Your task to perform on an android device: toggle sleep mode Image 0: 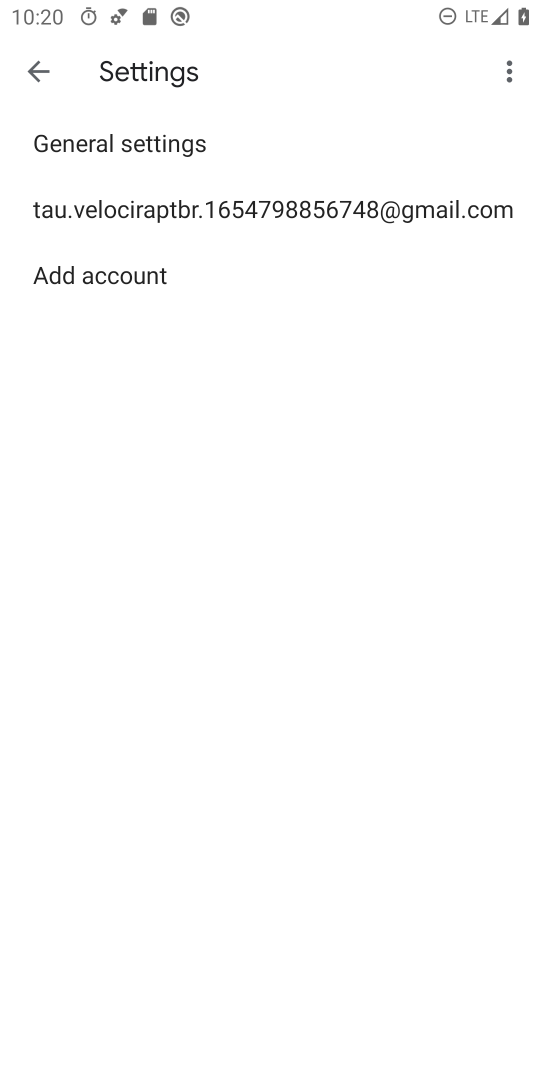
Step 0: press home button
Your task to perform on an android device: toggle sleep mode Image 1: 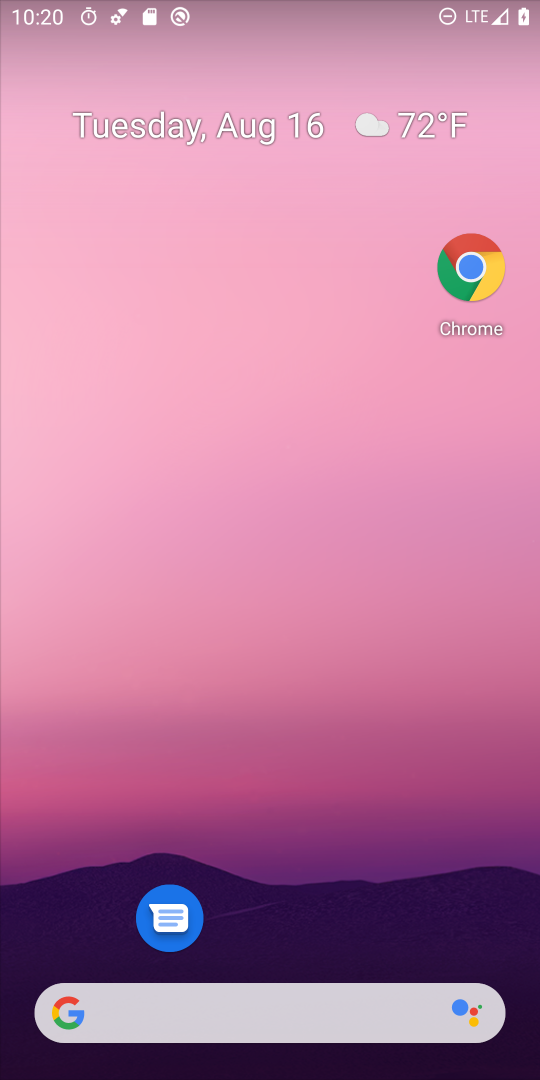
Step 1: drag from (432, 948) to (383, 569)
Your task to perform on an android device: toggle sleep mode Image 2: 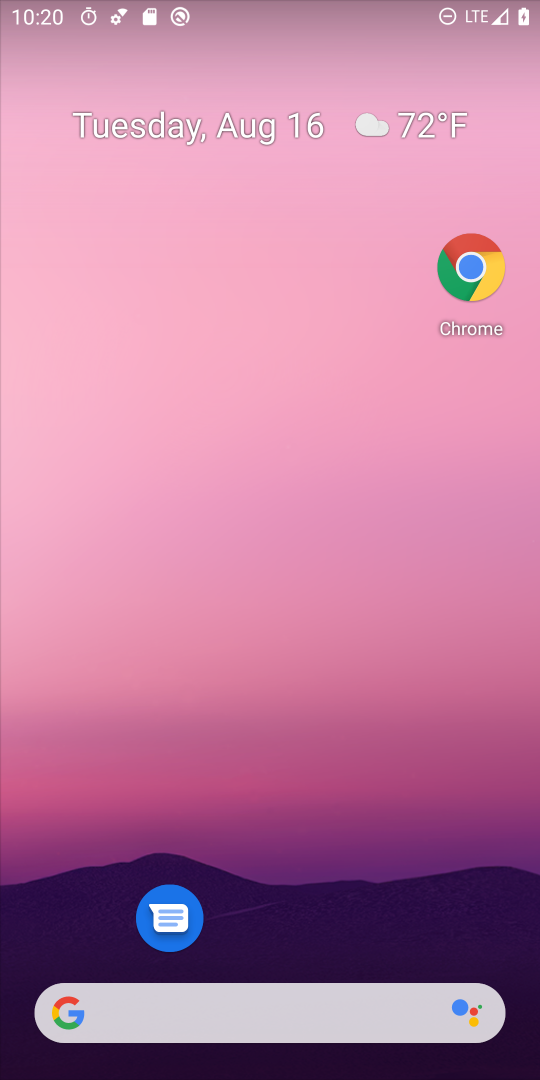
Step 2: drag from (360, 934) to (304, 92)
Your task to perform on an android device: toggle sleep mode Image 3: 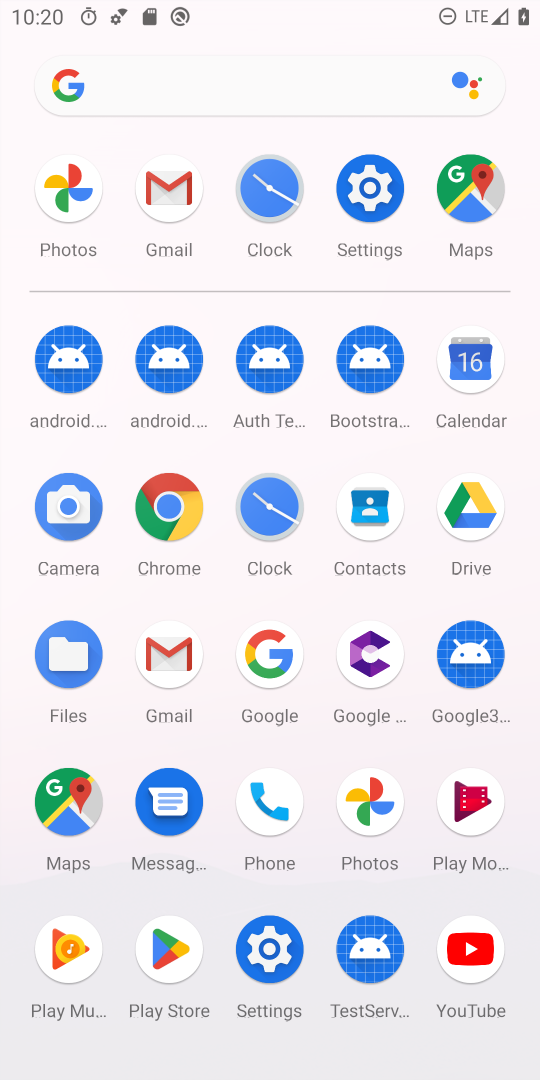
Step 3: click (382, 233)
Your task to perform on an android device: toggle sleep mode Image 4: 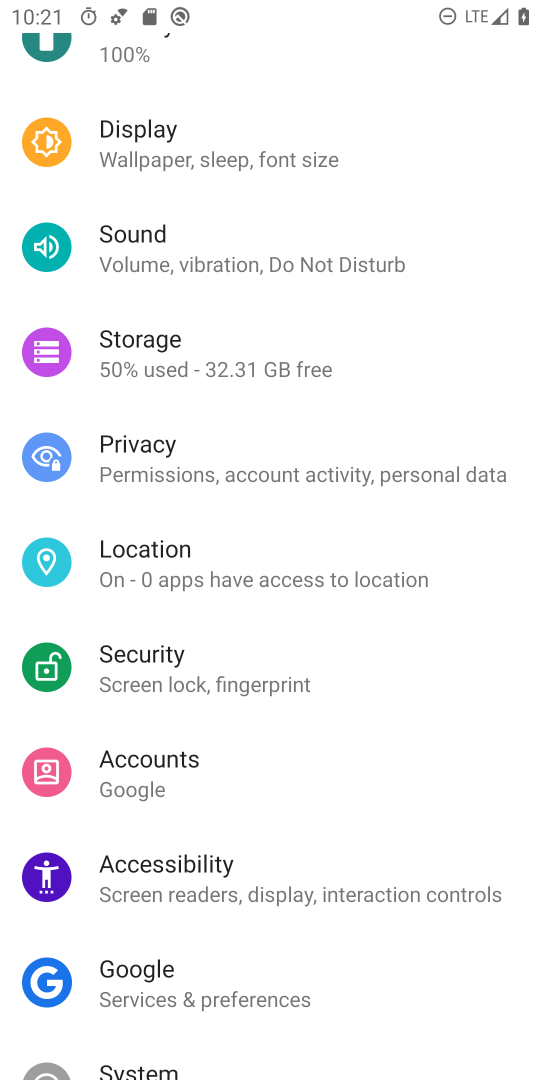
Step 4: click (177, 147)
Your task to perform on an android device: toggle sleep mode Image 5: 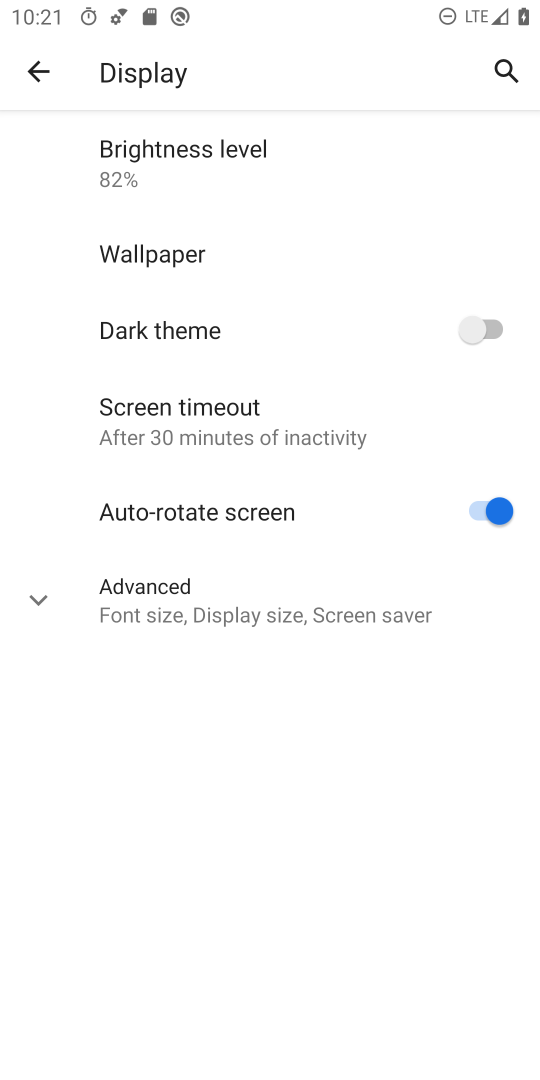
Step 5: click (137, 626)
Your task to perform on an android device: toggle sleep mode Image 6: 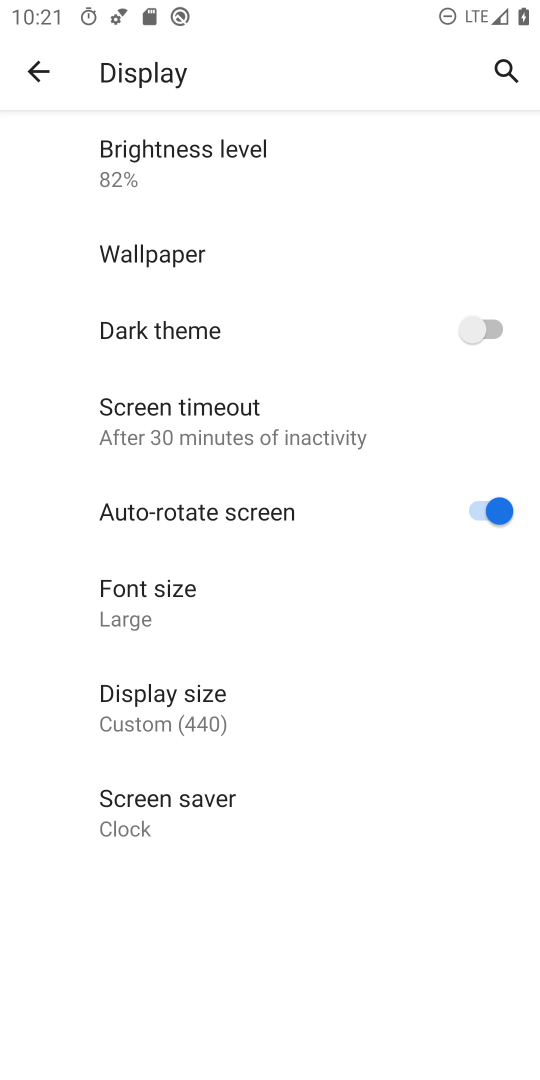
Step 6: task complete